Your task to perform on an android device: turn off javascript in the chrome app Image 0: 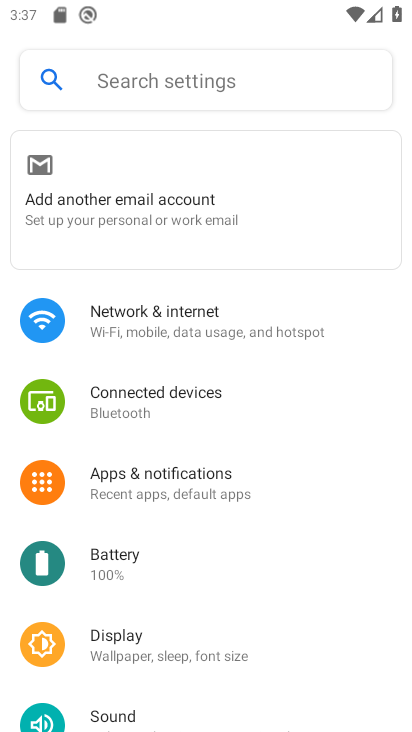
Step 0: press home button
Your task to perform on an android device: turn off javascript in the chrome app Image 1: 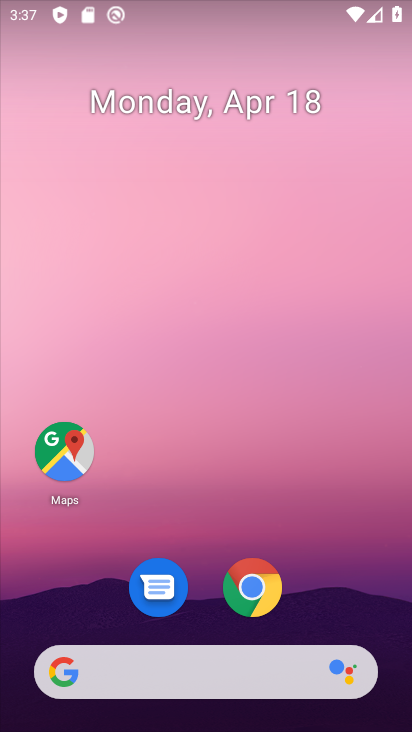
Step 1: click (252, 573)
Your task to perform on an android device: turn off javascript in the chrome app Image 2: 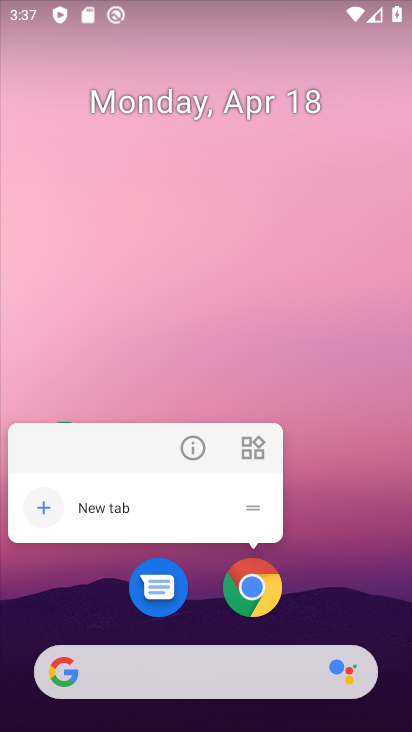
Step 2: click (252, 573)
Your task to perform on an android device: turn off javascript in the chrome app Image 3: 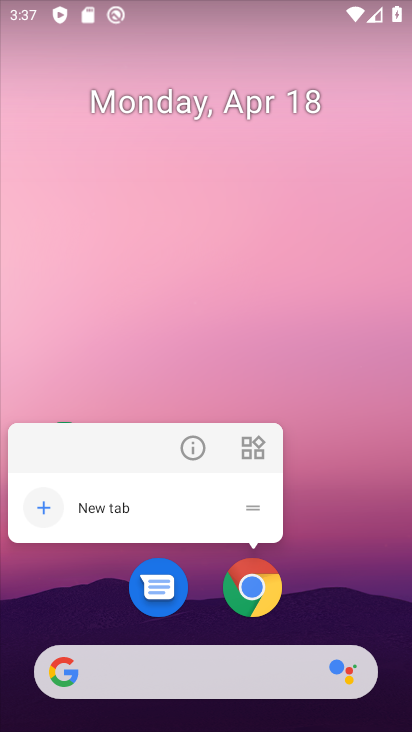
Step 3: click (252, 573)
Your task to perform on an android device: turn off javascript in the chrome app Image 4: 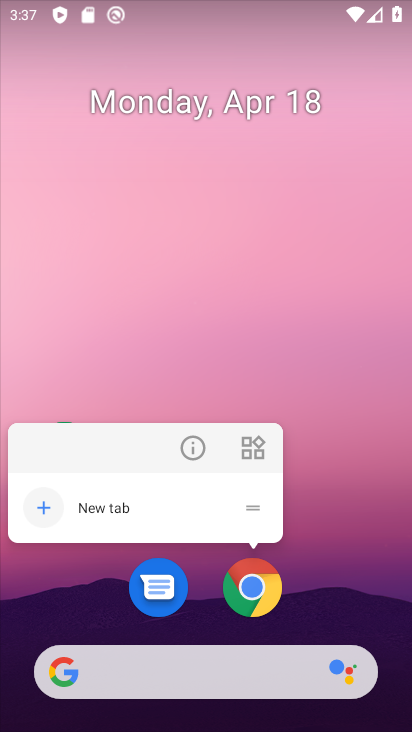
Step 4: click (252, 573)
Your task to perform on an android device: turn off javascript in the chrome app Image 5: 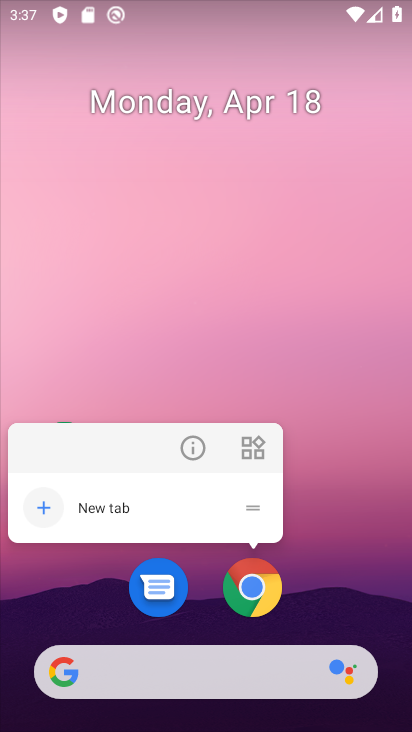
Step 5: click (252, 573)
Your task to perform on an android device: turn off javascript in the chrome app Image 6: 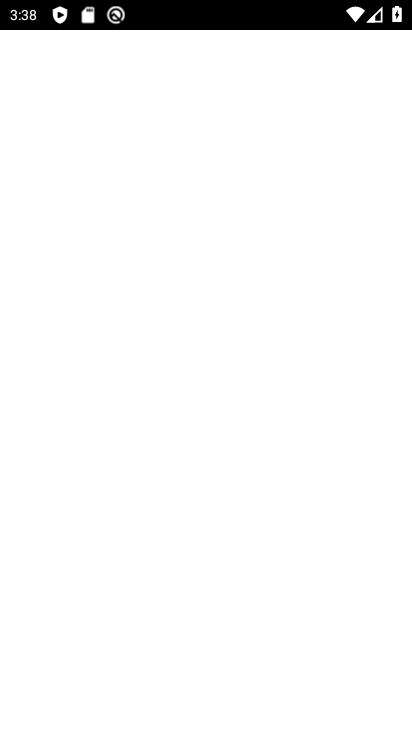
Step 6: click (252, 573)
Your task to perform on an android device: turn off javascript in the chrome app Image 7: 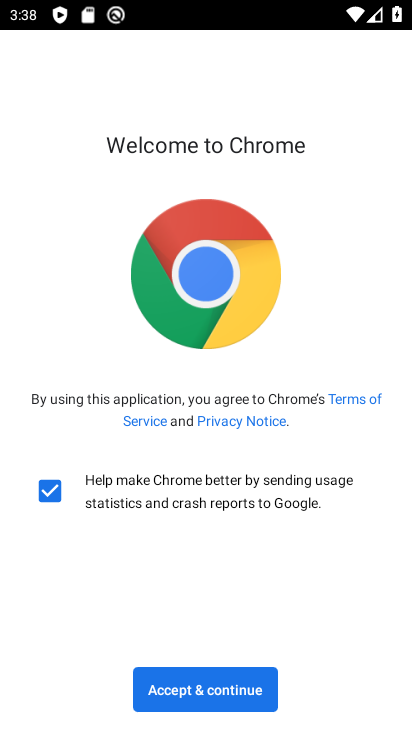
Step 7: click (218, 698)
Your task to perform on an android device: turn off javascript in the chrome app Image 8: 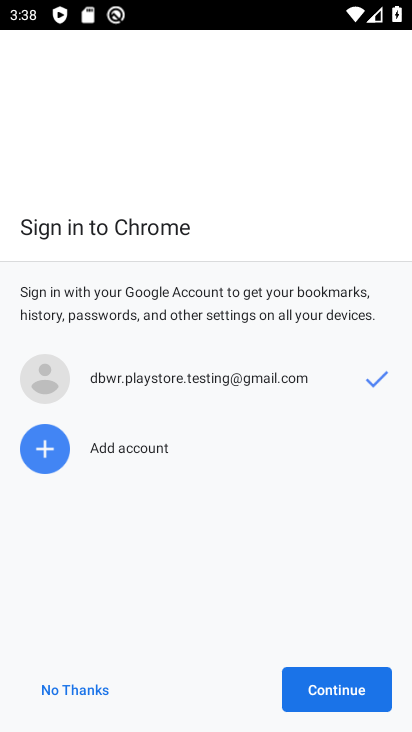
Step 8: click (330, 687)
Your task to perform on an android device: turn off javascript in the chrome app Image 9: 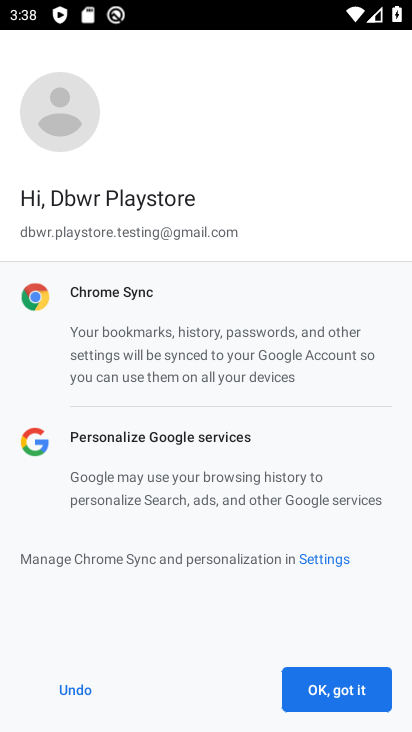
Step 9: click (330, 687)
Your task to perform on an android device: turn off javascript in the chrome app Image 10: 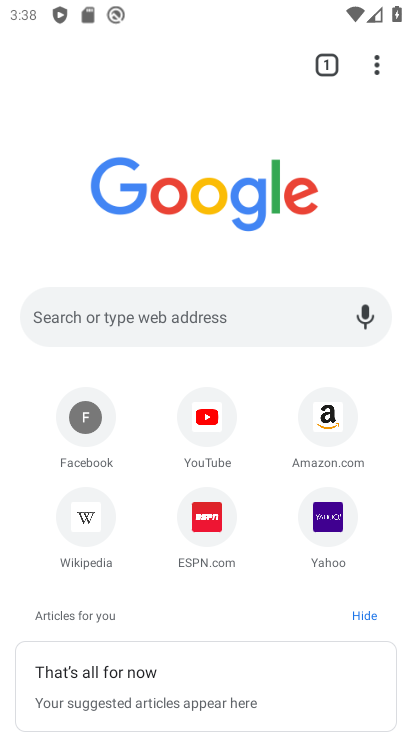
Step 10: click (376, 64)
Your task to perform on an android device: turn off javascript in the chrome app Image 11: 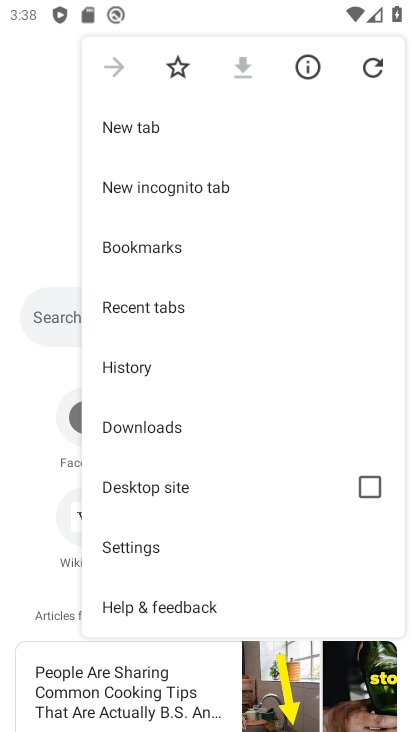
Step 11: click (146, 543)
Your task to perform on an android device: turn off javascript in the chrome app Image 12: 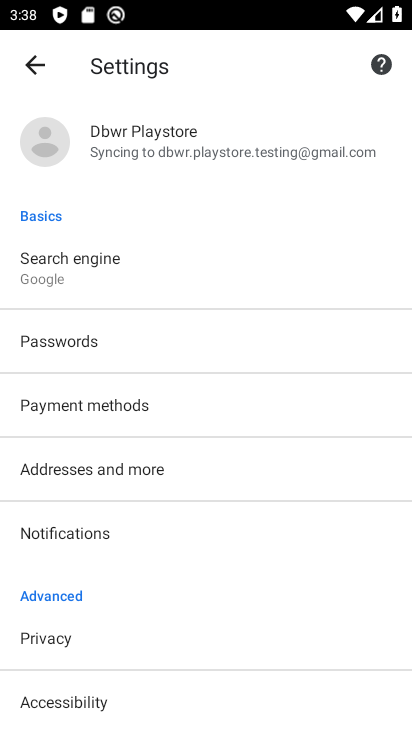
Step 12: drag from (118, 491) to (117, 225)
Your task to perform on an android device: turn off javascript in the chrome app Image 13: 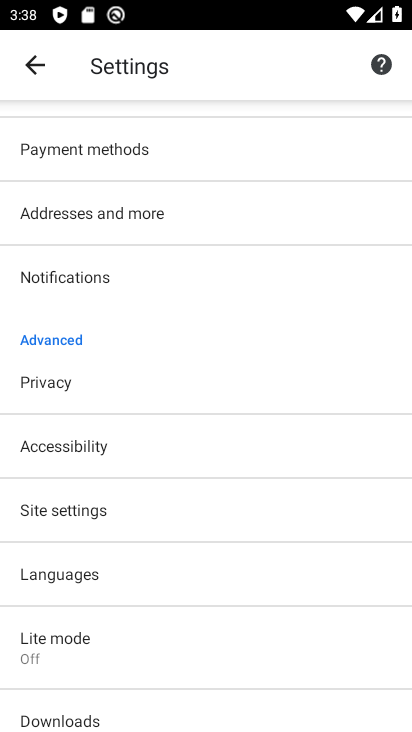
Step 13: click (83, 500)
Your task to perform on an android device: turn off javascript in the chrome app Image 14: 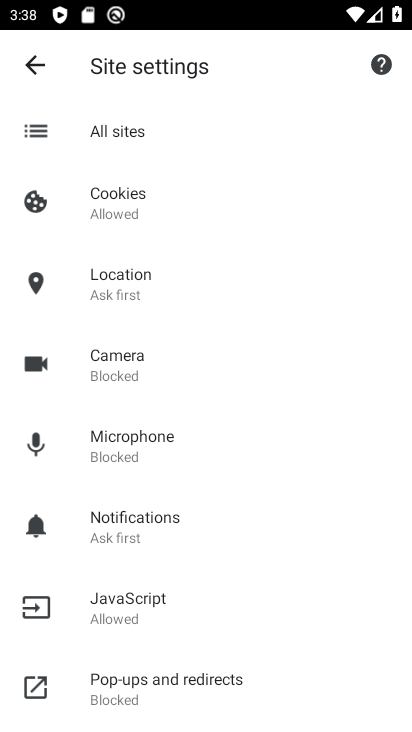
Step 14: click (162, 597)
Your task to perform on an android device: turn off javascript in the chrome app Image 15: 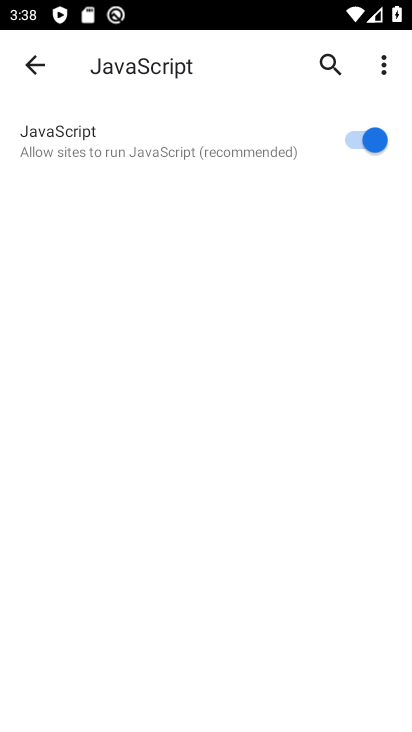
Step 15: click (355, 139)
Your task to perform on an android device: turn off javascript in the chrome app Image 16: 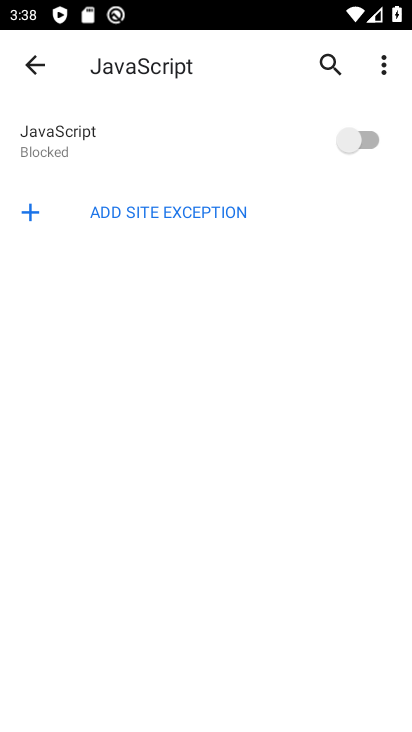
Step 16: task complete